Your task to perform on an android device: add a contact Image 0: 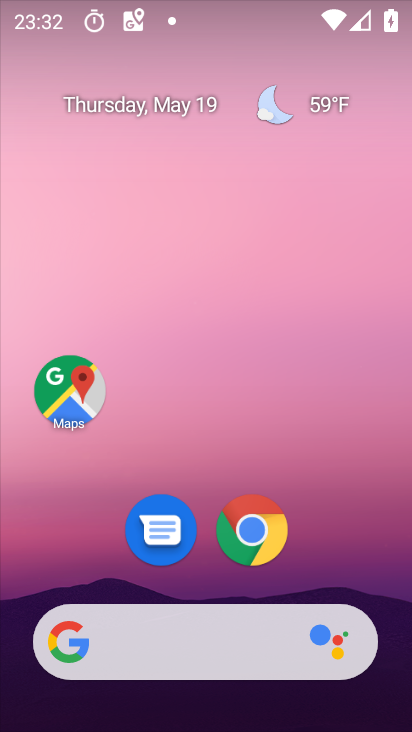
Step 0: drag from (339, 551) to (331, 162)
Your task to perform on an android device: add a contact Image 1: 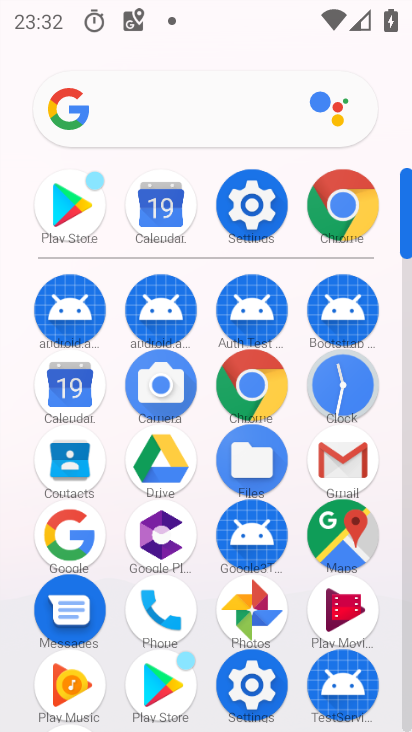
Step 1: drag from (196, 627) to (210, 396)
Your task to perform on an android device: add a contact Image 2: 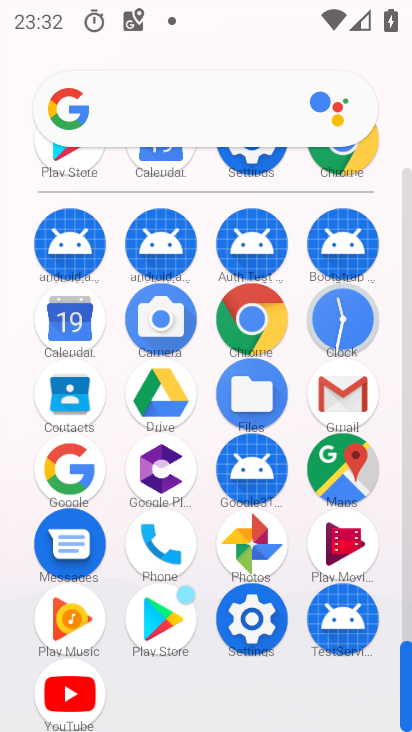
Step 2: drag from (209, 363) to (171, 648)
Your task to perform on an android device: add a contact Image 3: 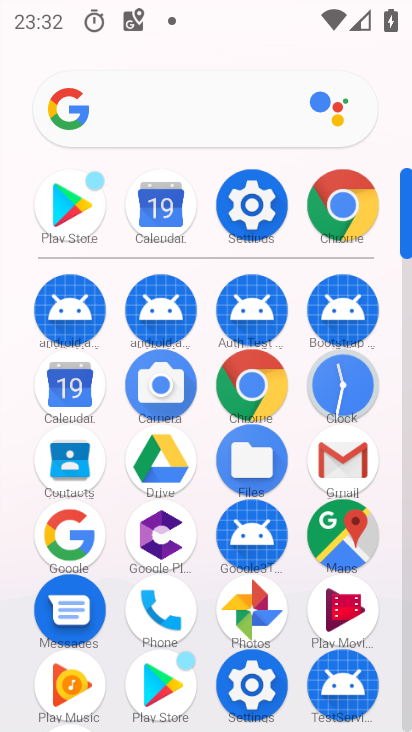
Step 3: click (65, 461)
Your task to perform on an android device: add a contact Image 4: 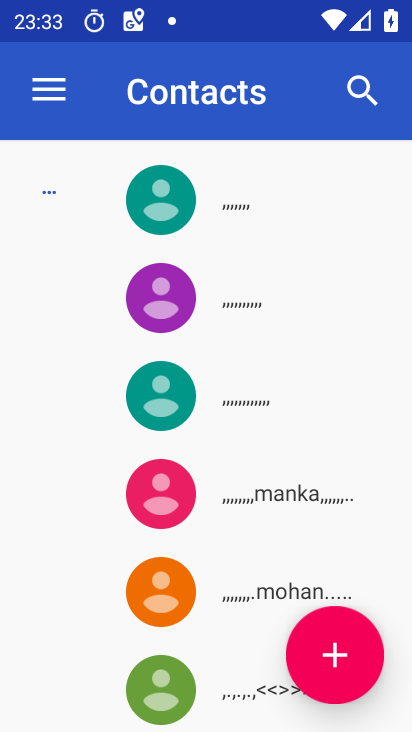
Step 4: click (323, 658)
Your task to perform on an android device: add a contact Image 5: 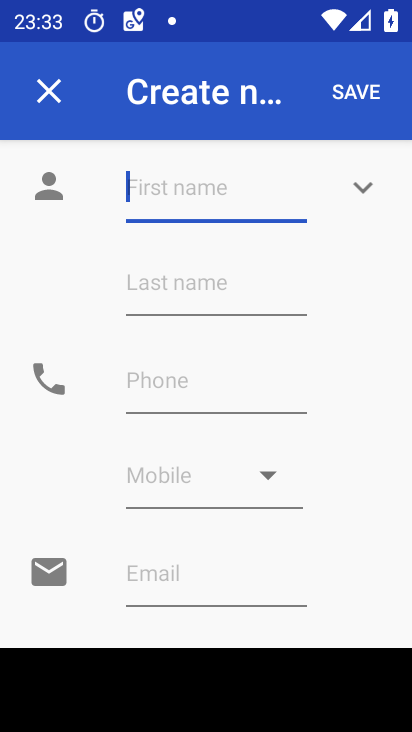
Step 5: type "oedncoe"
Your task to perform on an android device: add a contact Image 6: 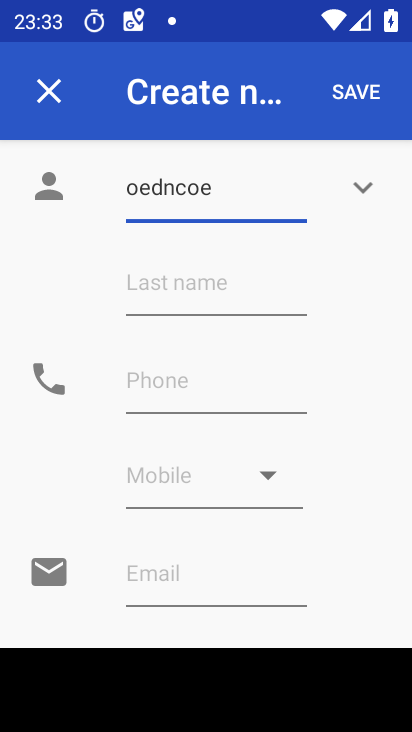
Step 6: click (231, 386)
Your task to perform on an android device: add a contact Image 7: 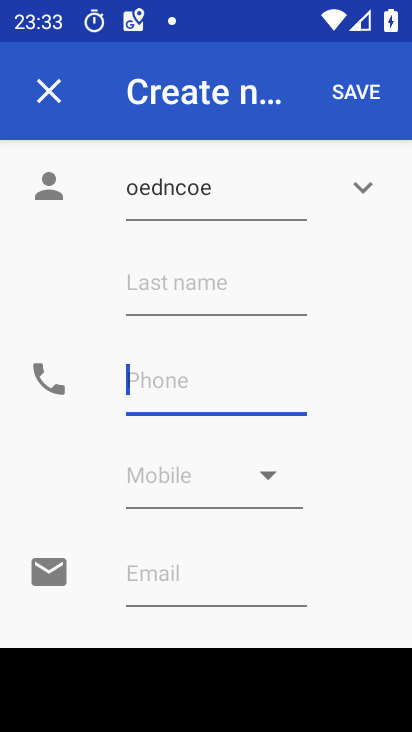
Step 7: type "102980298"
Your task to perform on an android device: add a contact Image 8: 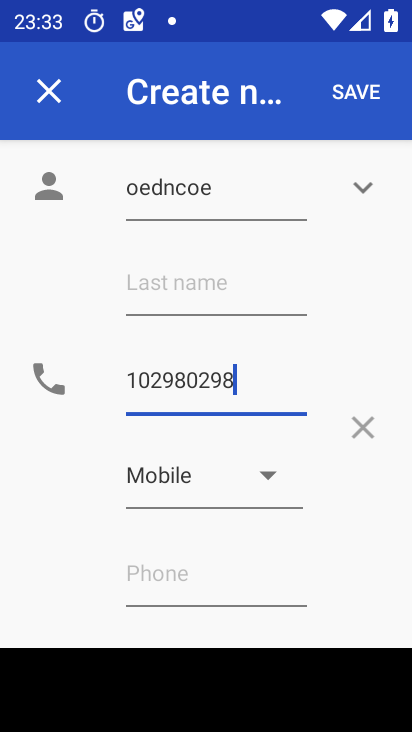
Step 8: click (368, 85)
Your task to perform on an android device: add a contact Image 9: 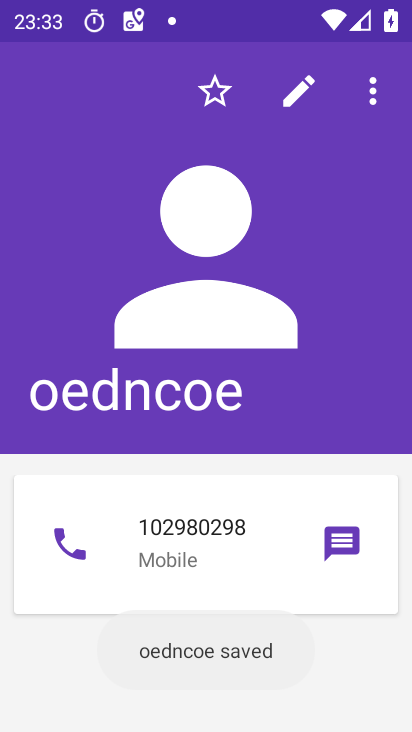
Step 9: task complete